Your task to perform on an android device: Show me the alarms in the clock app Image 0: 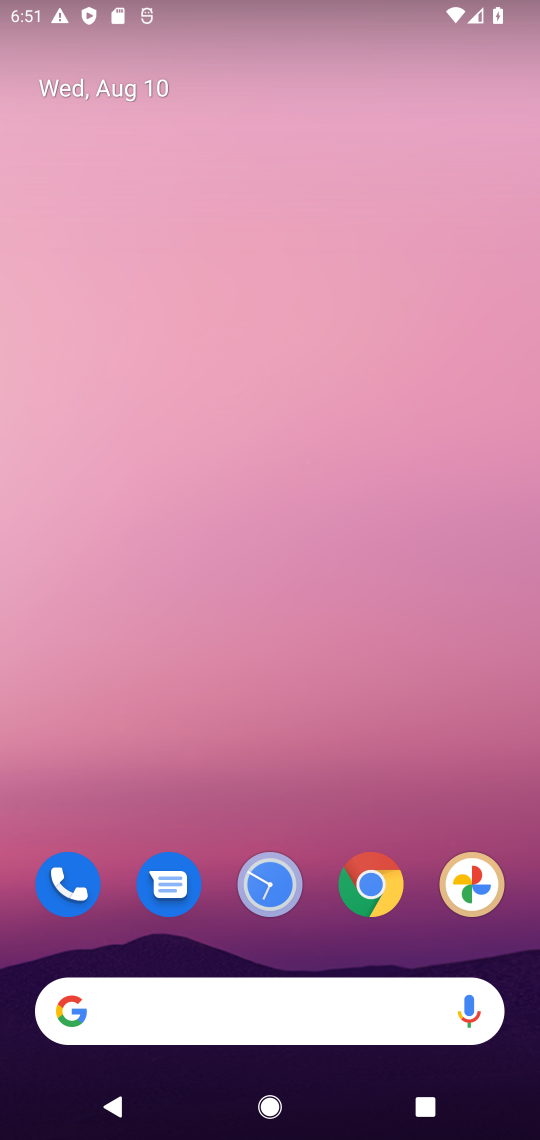
Step 0: click (260, 887)
Your task to perform on an android device: Show me the alarms in the clock app Image 1: 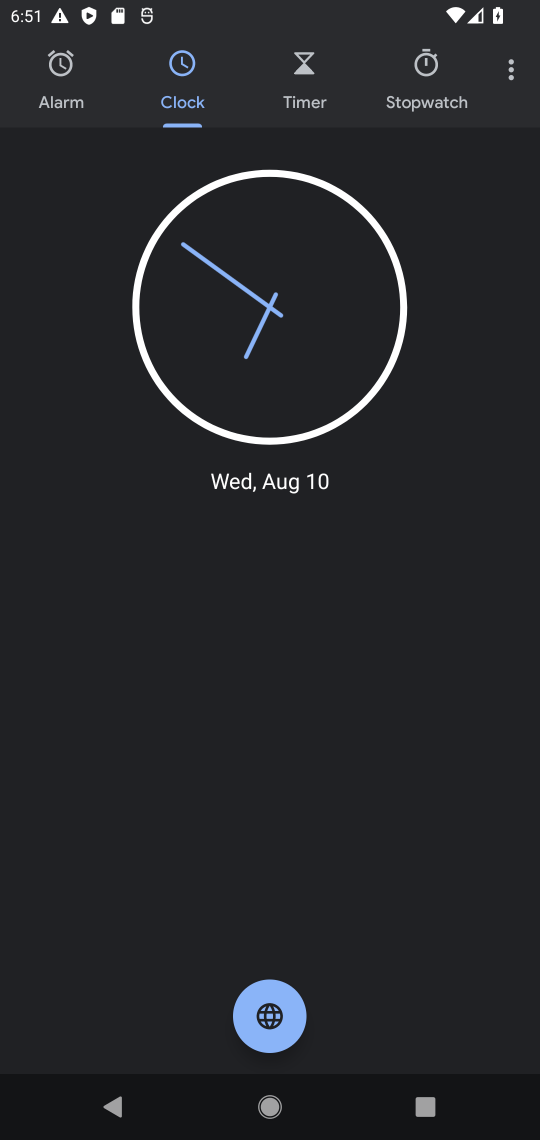
Step 1: click (58, 74)
Your task to perform on an android device: Show me the alarms in the clock app Image 2: 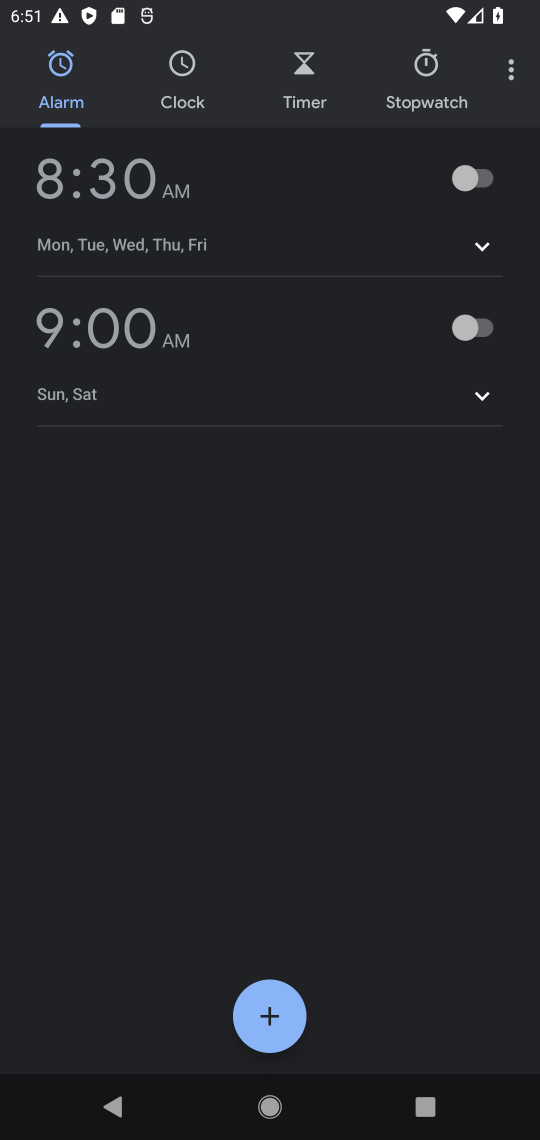
Step 2: click (458, 171)
Your task to perform on an android device: Show me the alarms in the clock app Image 3: 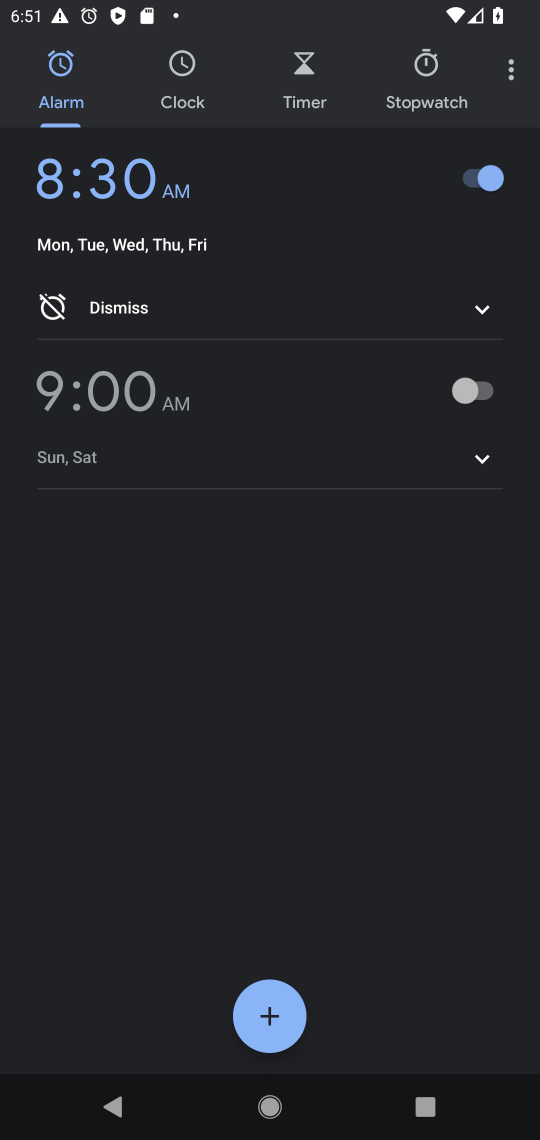
Step 3: task complete